Your task to perform on an android device: turn off smart reply in the gmail app Image 0: 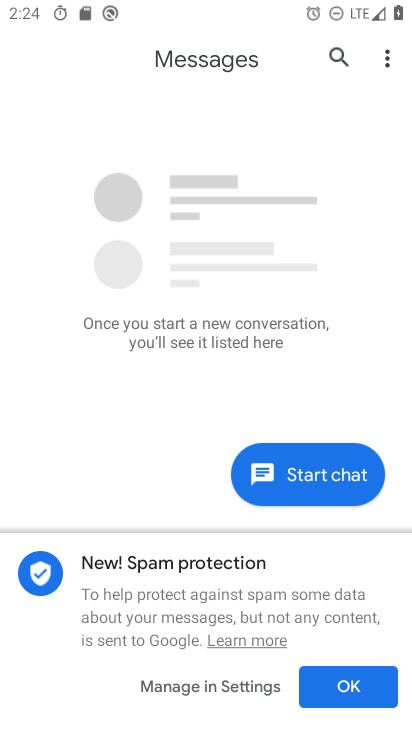
Step 0: press home button
Your task to perform on an android device: turn off smart reply in the gmail app Image 1: 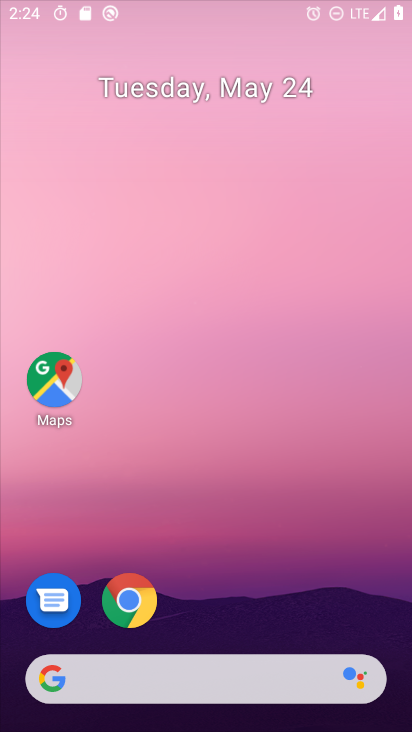
Step 1: drag from (198, 597) to (240, 246)
Your task to perform on an android device: turn off smart reply in the gmail app Image 2: 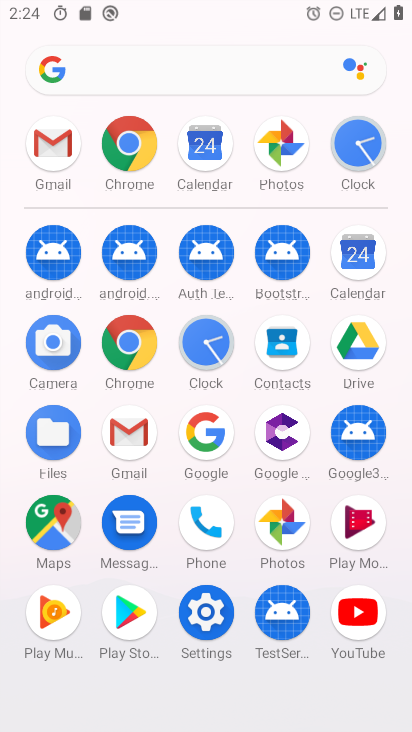
Step 2: click (68, 147)
Your task to perform on an android device: turn off smart reply in the gmail app Image 3: 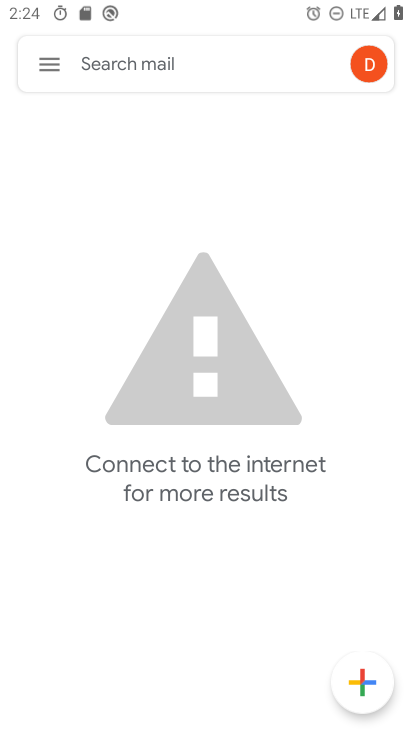
Step 3: click (63, 67)
Your task to perform on an android device: turn off smart reply in the gmail app Image 4: 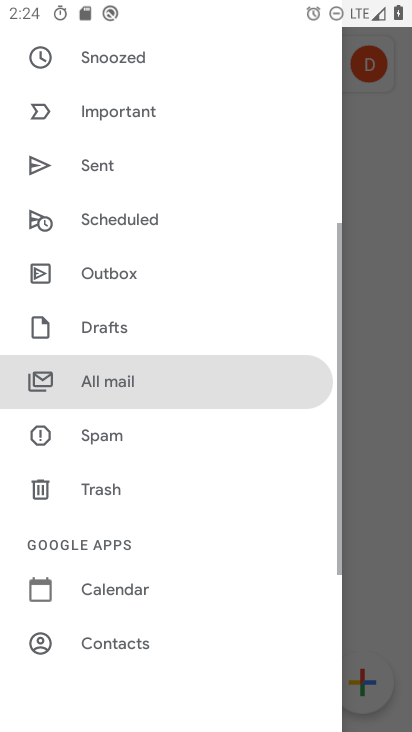
Step 4: drag from (165, 597) to (228, 129)
Your task to perform on an android device: turn off smart reply in the gmail app Image 5: 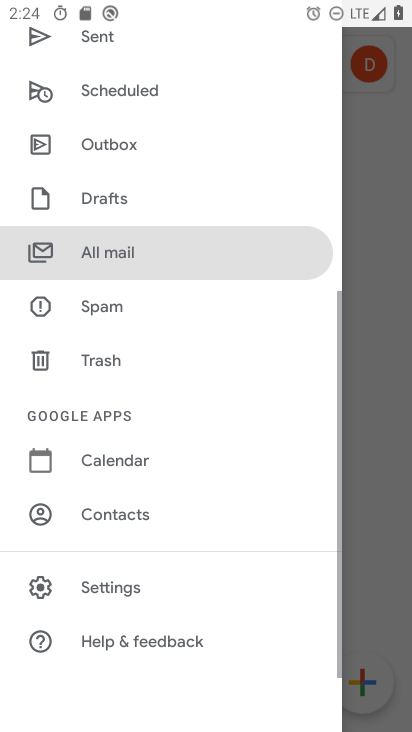
Step 5: click (134, 580)
Your task to perform on an android device: turn off smart reply in the gmail app Image 6: 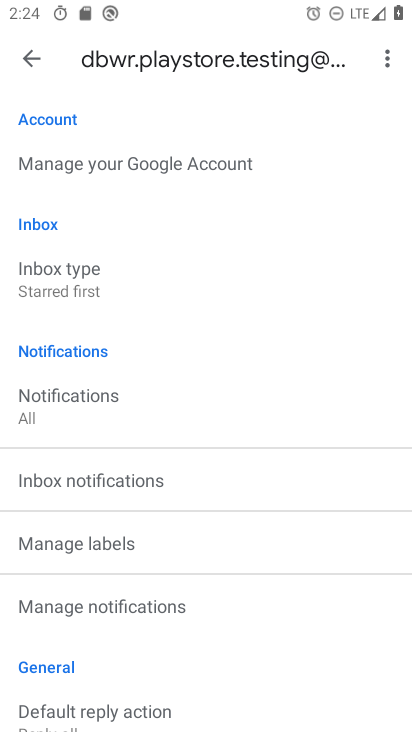
Step 6: drag from (133, 583) to (226, 249)
Your task to perform on an android device: turn off smart reply in the gmail app Image 7: 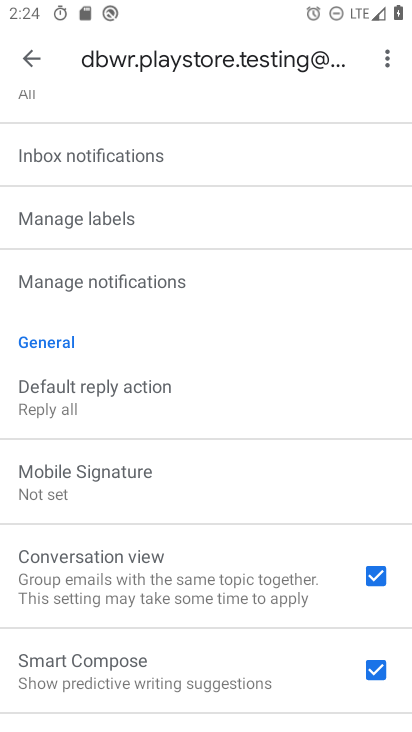
Step 7: drag from (172, 515) to (237, 292)
Your task to perform on an android device: turn off smart reply in the gmail app Image 8: 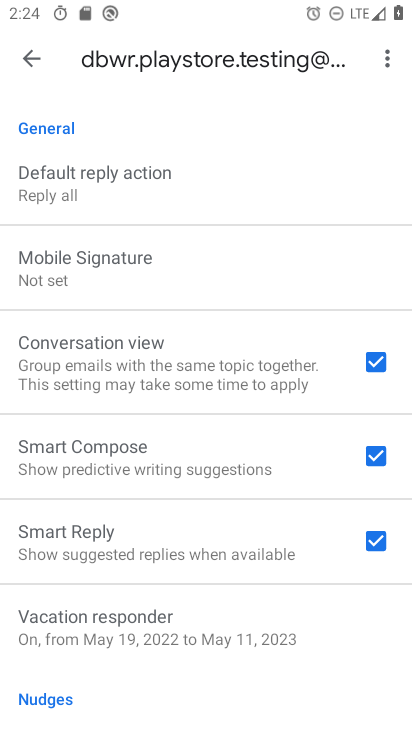
Step 8: click (379, 540)
Your task to perform on an android device: turn off smart reply in the gmail app Image 9: 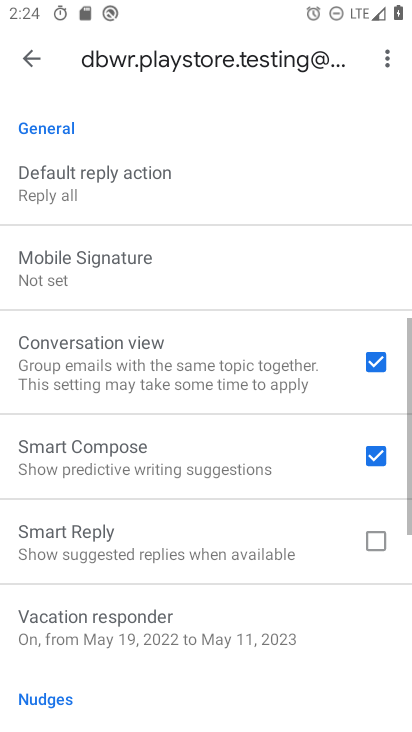
Step 9: task complete